Your task to perform on an android device: see creations saved in the google photos Image 0: 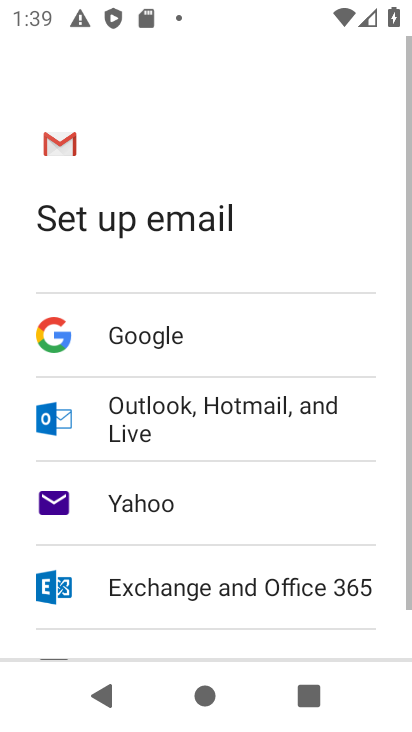
Step 0: press home button
Your task to perform on an android device: see creations saved in the google photos Image 1: 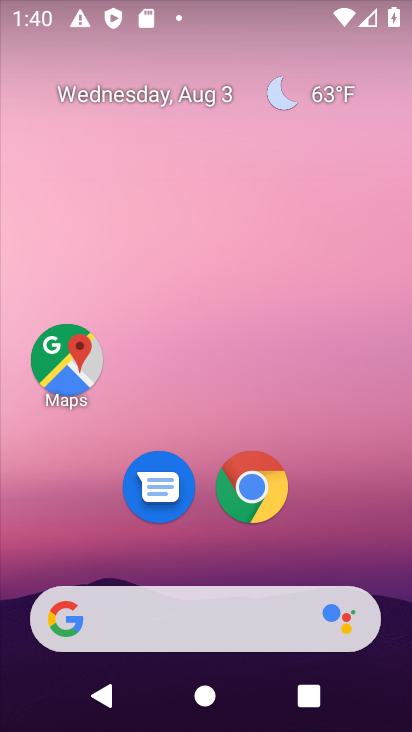
Step 1: click (371, 101)
Your task to perform on an android device: see creations saved in the google photos Image 2: 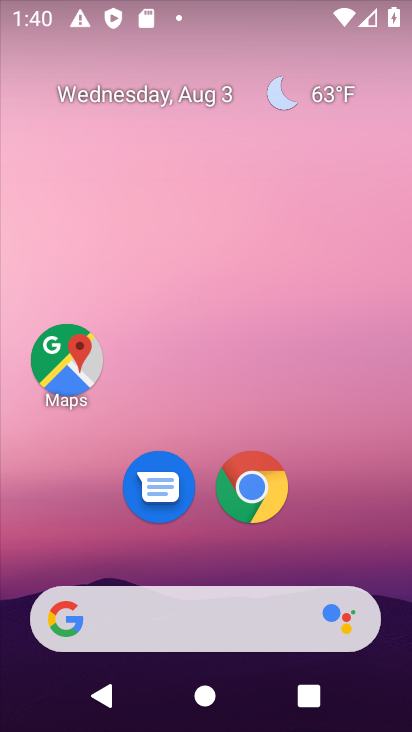
Step 2: drag from (345, 515) to (371, 14)
Your task to perform on an android device: see creations saved in the google photos Image 3: 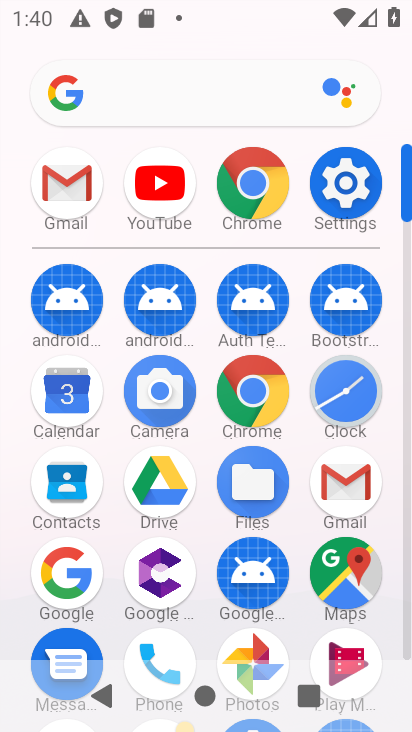
Step 3: click (257, 651)
Your task to perform on an android device: see creations saved in the google photos Image 4: 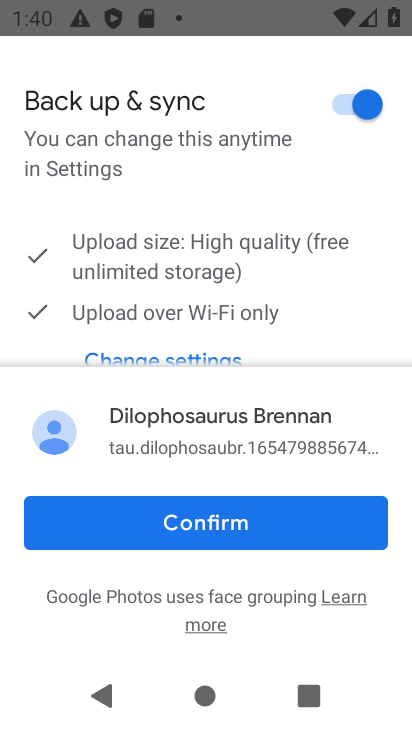
Step 4: click (214, 519)
Your task to perform on an android device: see creations saved in the google photos Image 5: 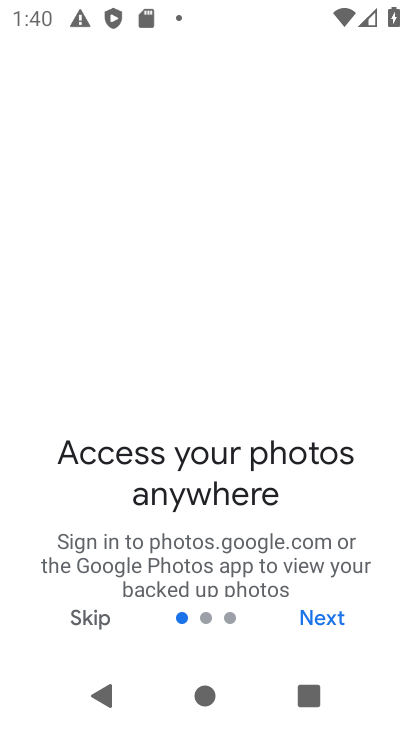
Step 5: click (331, 615)
Your task to perform on an android device: see creations saved in the google photos Image 6: 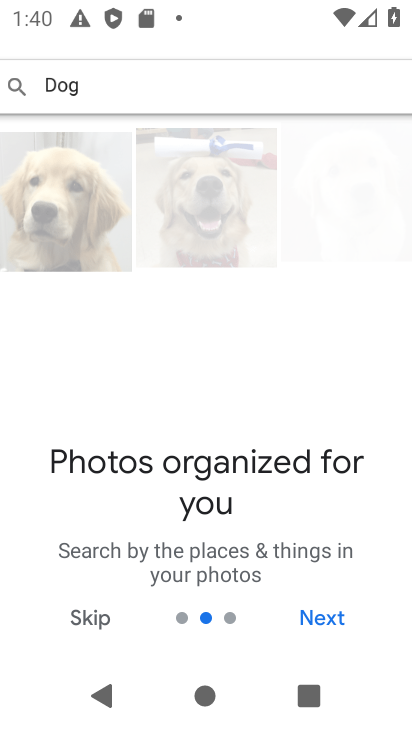
Step 6: click (331, 615)
Your task to perform on an android device: see creations saved in the google photos Image 7: 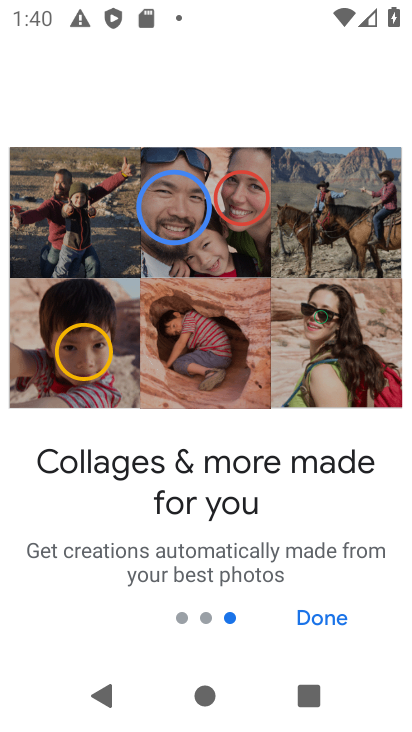
Step 7: click (331, 615)
Your task to perform on an android device: see creations saved in the google photos Image 8: 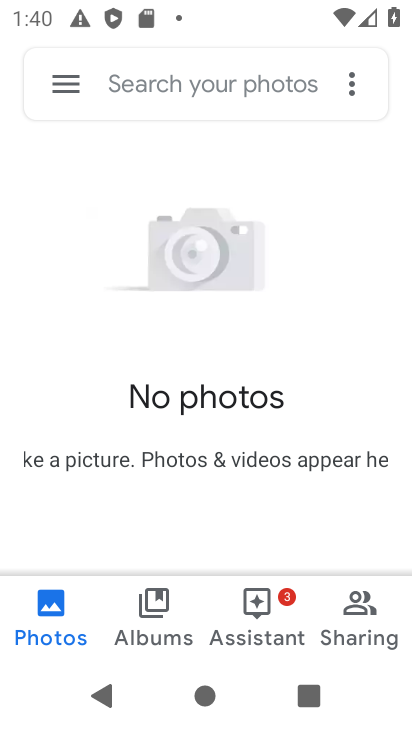
Step 8: click (167, 90)
Your task to perform on an android device: see creations saved in the google photos Image 9: 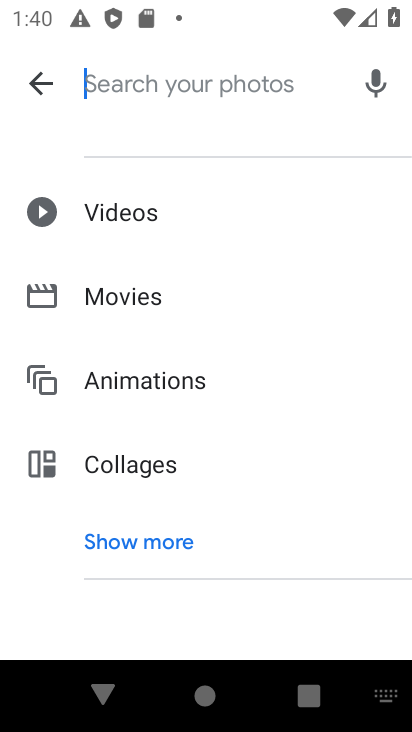
Step 9: click (178, 549)
Your task to perform on an android device: see creations saved in the google photos Image 10: 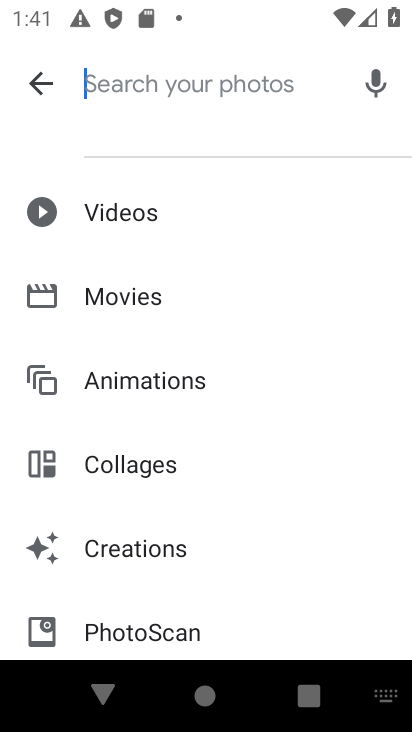
Step 10: click (89, 536)
Your task to perform on an android device: see creations saved in the google photos Image 11: 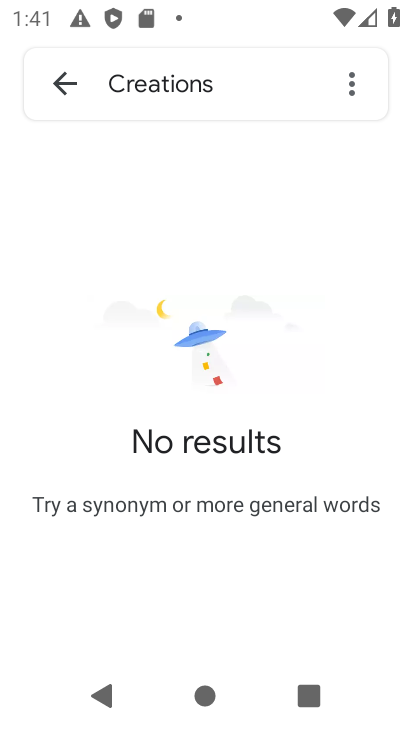
Step 11: task complete